Your task to perform on an android device: Search for "razer thresher" on bestbuy, select the first entry, and add it to the cart. Image 0: 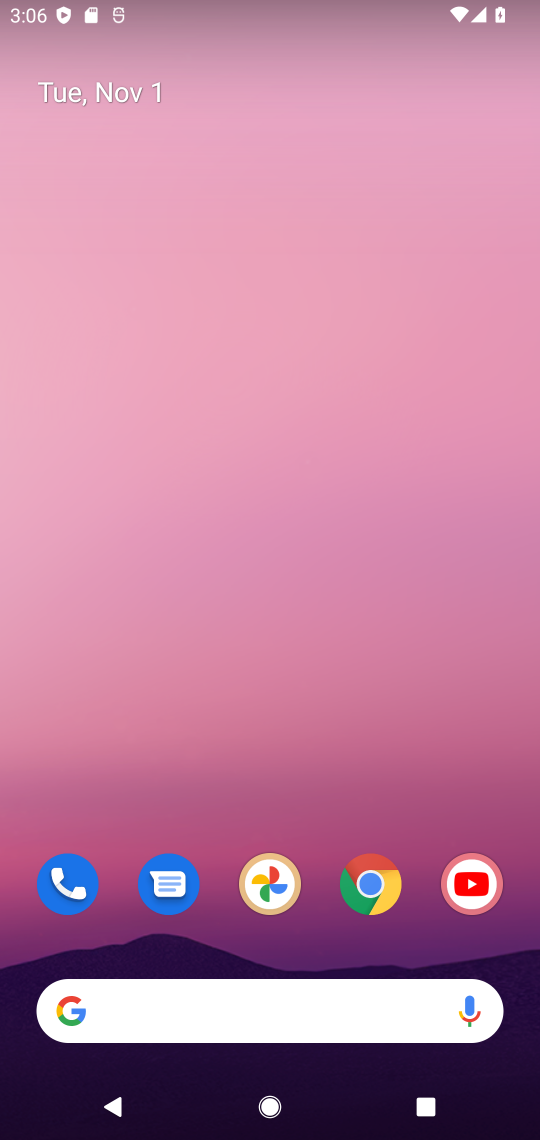
Step 0: click (525, 761)
Your task to perform on an android device: Search for "razer thresher" on bestbuy, select the first entry, and add it to the cart. Image 1: 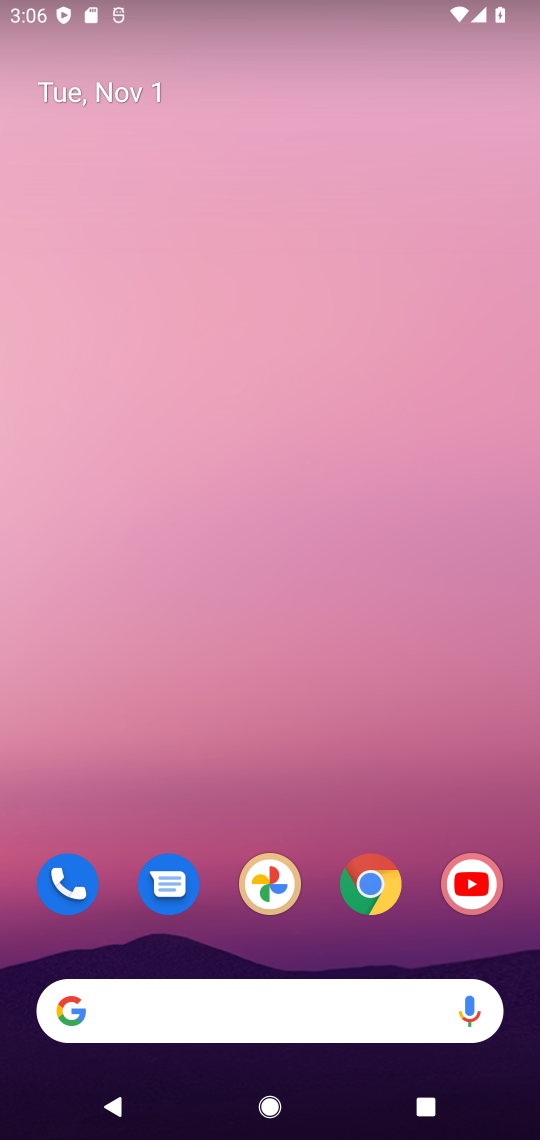
Step 1: click (382, 892)
Your task to perform on an android device: Search for "razer thresher" on bestbuy, select the first entry, and add it to the cart. Image 2: 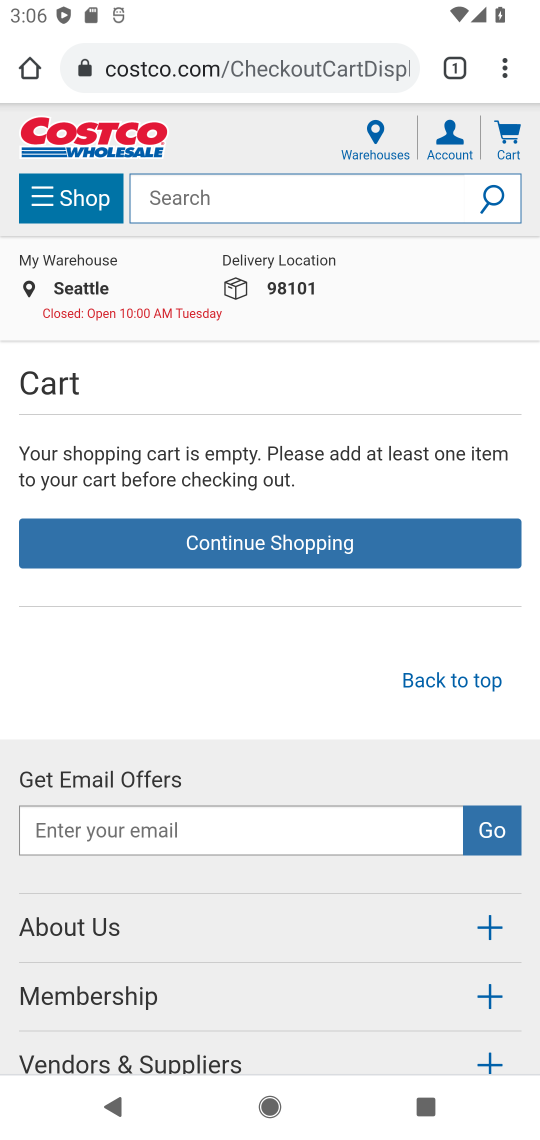
Step 2: click (233, 73)
Your task to perform on an android device: Search for "razer thresher" on bestbuy, select the first entry, and add it to the cart. Image 3: 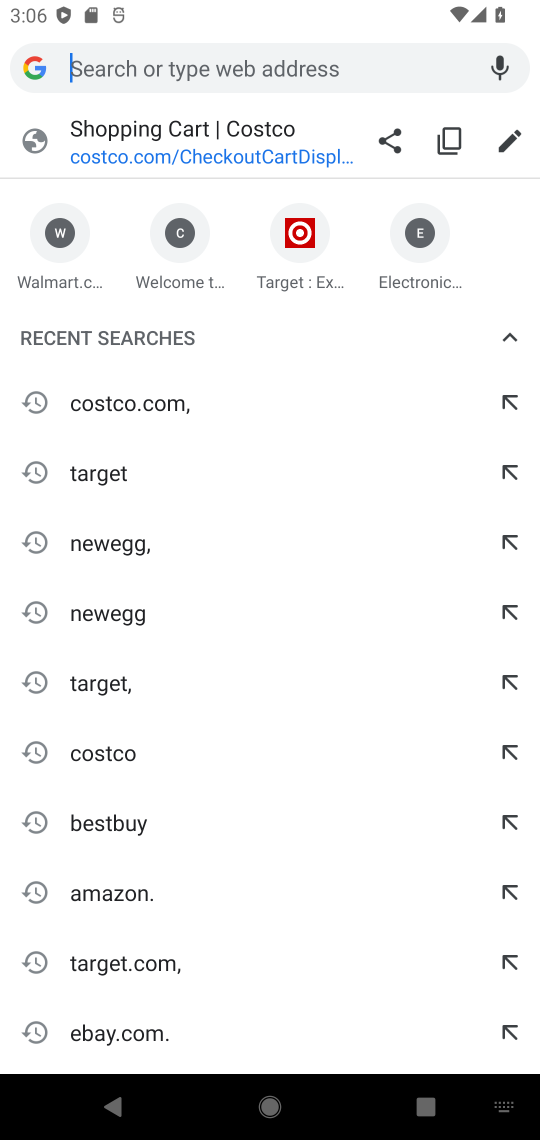
Step 3: type "costco.com"
Your task to perform on an android device: Search for "razer thresher" on bestbuy, select the first entry, and add it to the cart. Image 4: 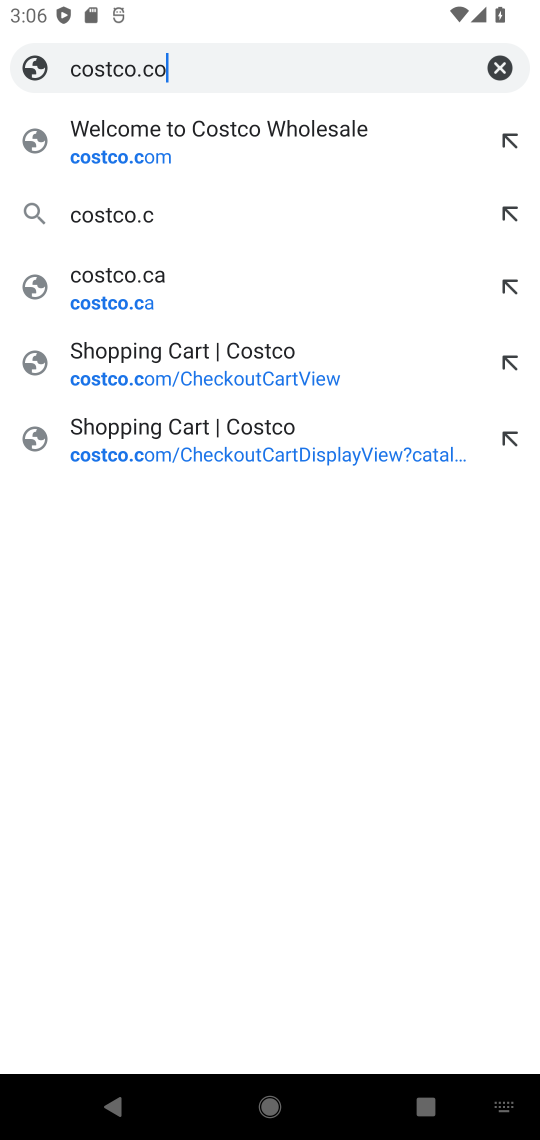
Step 4: press enter
Your task to perform on an android device: Search for "razer thresher" on bestbuy, select the first entry, and add it to the cart. Image 5: 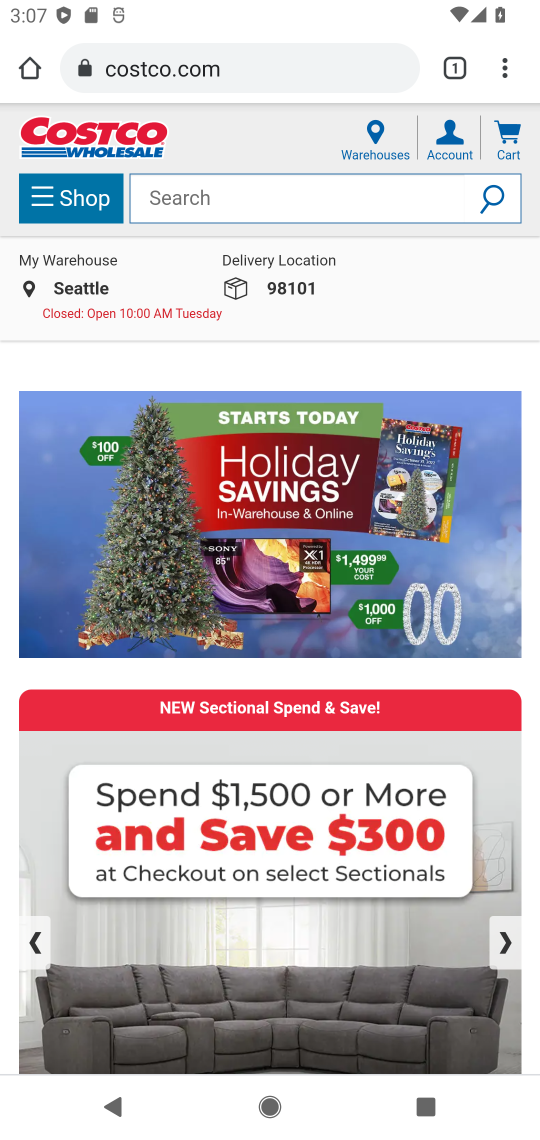
Step 5: click (287, 67)
Your task to perform on an android device: Search for "razer thresher" on bestbuy, select the first entry, and add it to the cart. Image 6: 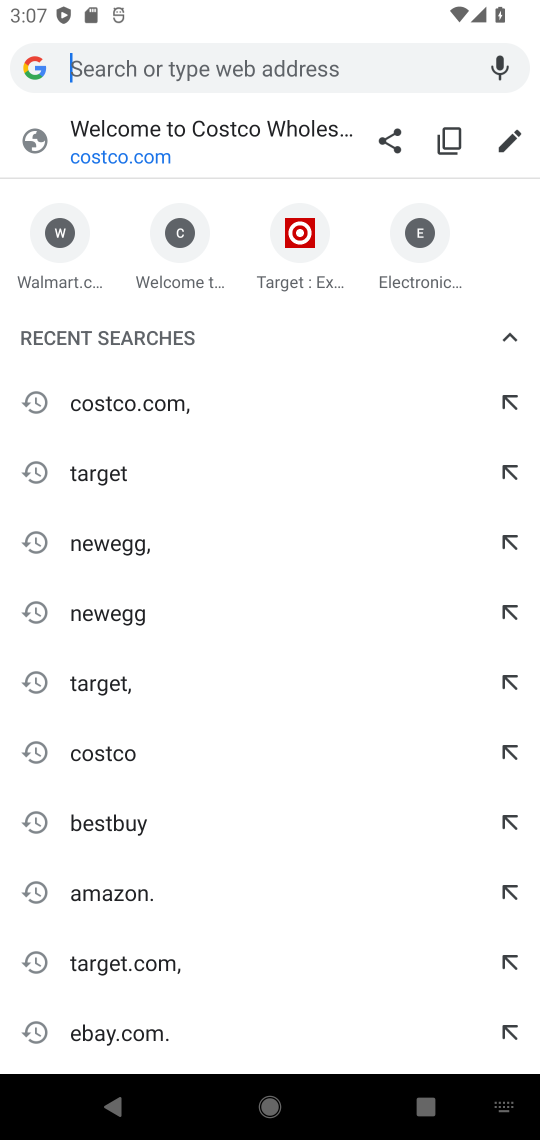
Step 6: type "bestbuy"
Your task to perform on an android device: Search for "razer thresher" on bestbuy, select the first entry, and add it to the cart. Image 7: 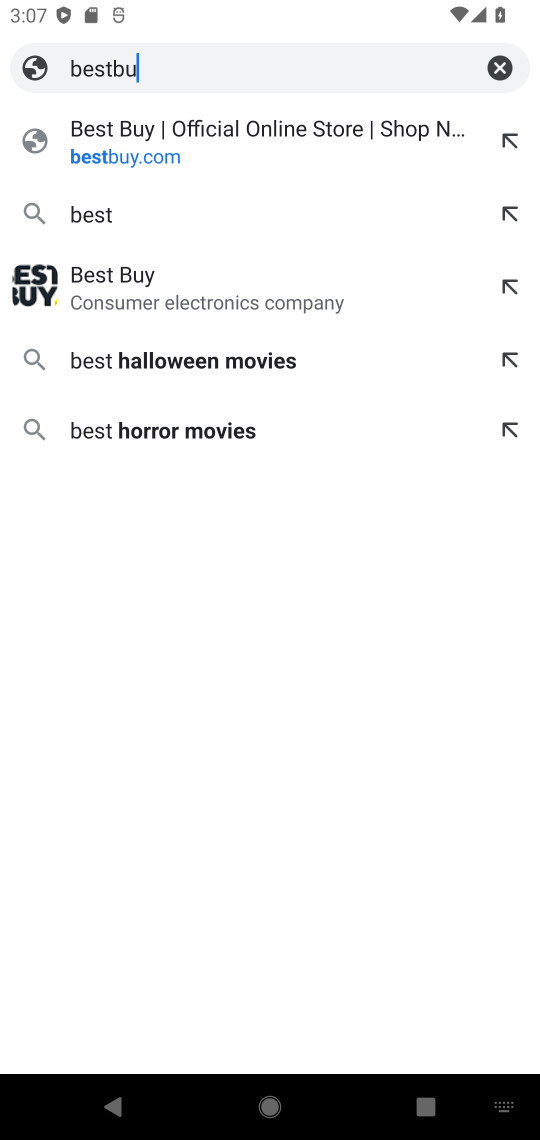
Step 7: press enter
Your task to perform on an android device: Search for "razer thresher" on bestbuy, select the first entry, and add it to the cart. Image 8: 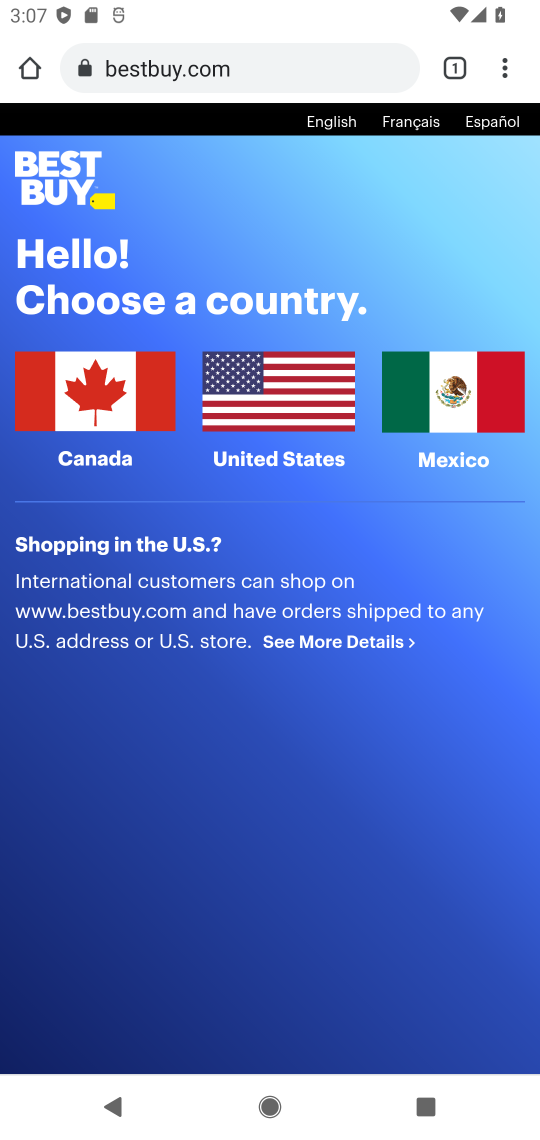
Step 8: click (303, 390)
Your task to perform on an android device: Search for "razer thresher" on bestbuy, select the first entry, and add it to the cart. Image 9: 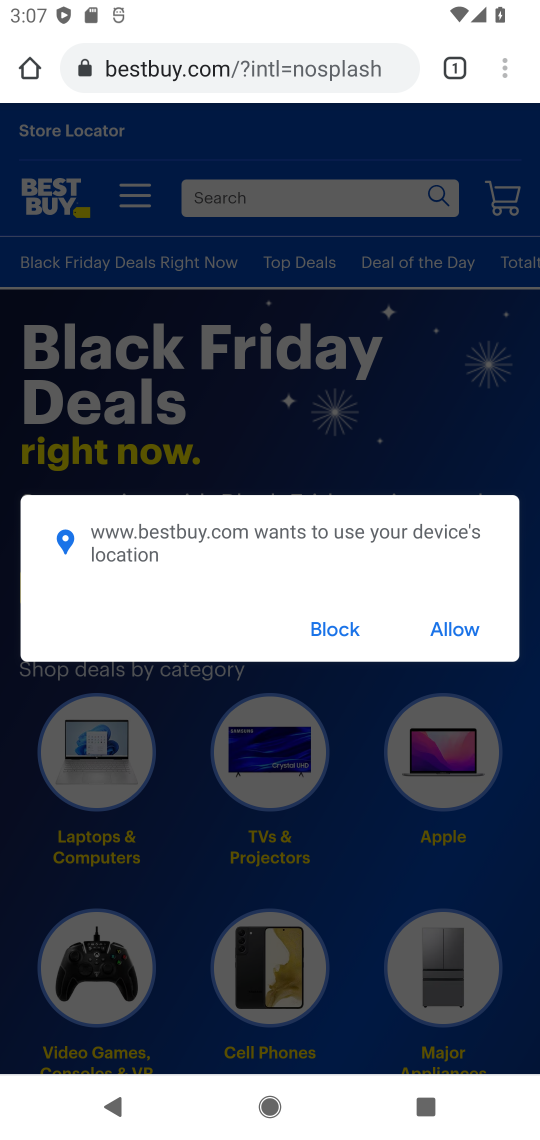
Step 9: click (346, 633)
Your task to perform on an android device: Search for "razer thresher" on bestbuy, select the first entry, and add it to the cart. Image 10: 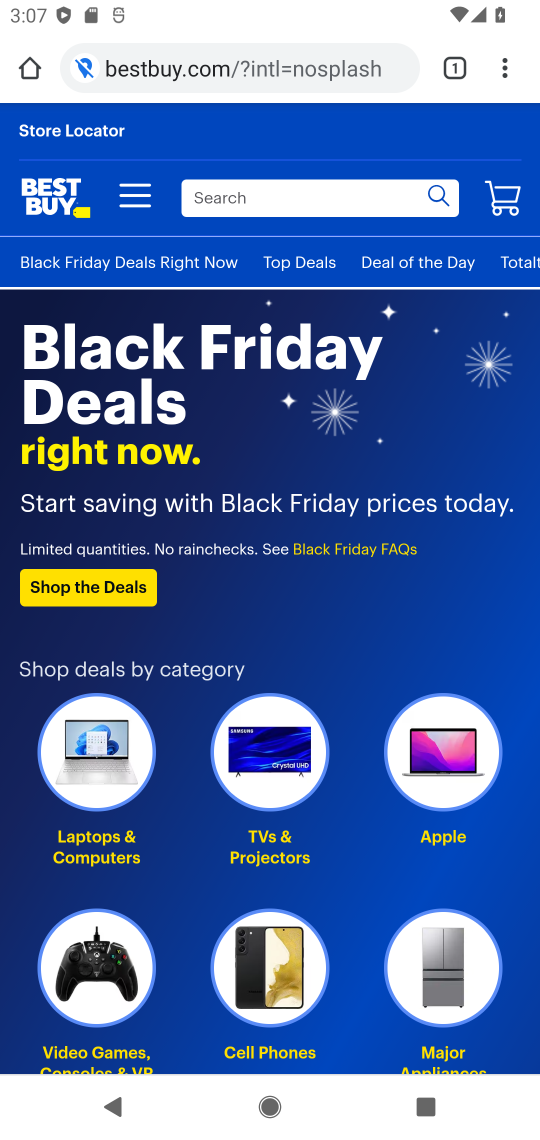
Step 10: click (317, 207)
Your task to perform on an android device: Search for "razer thresher" on bestbuy, select the first entry, and add it to the cart. Image 11: 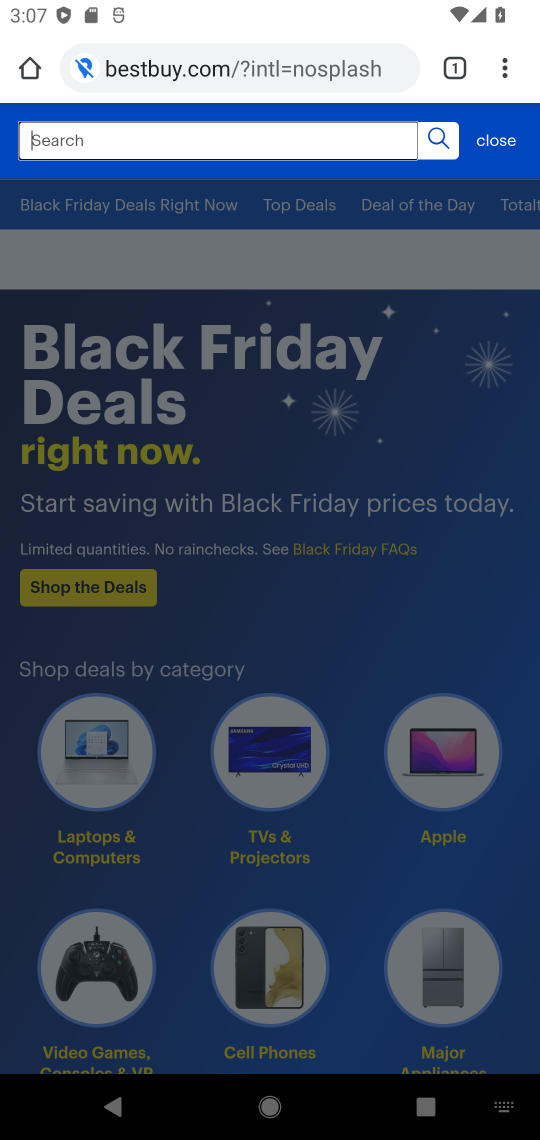
Step 11: type "razer thresher"
Your task to perform on an android device: Search for "razer thresher" on bestbuy, select the first entry, and add it to the cart. Image 12: 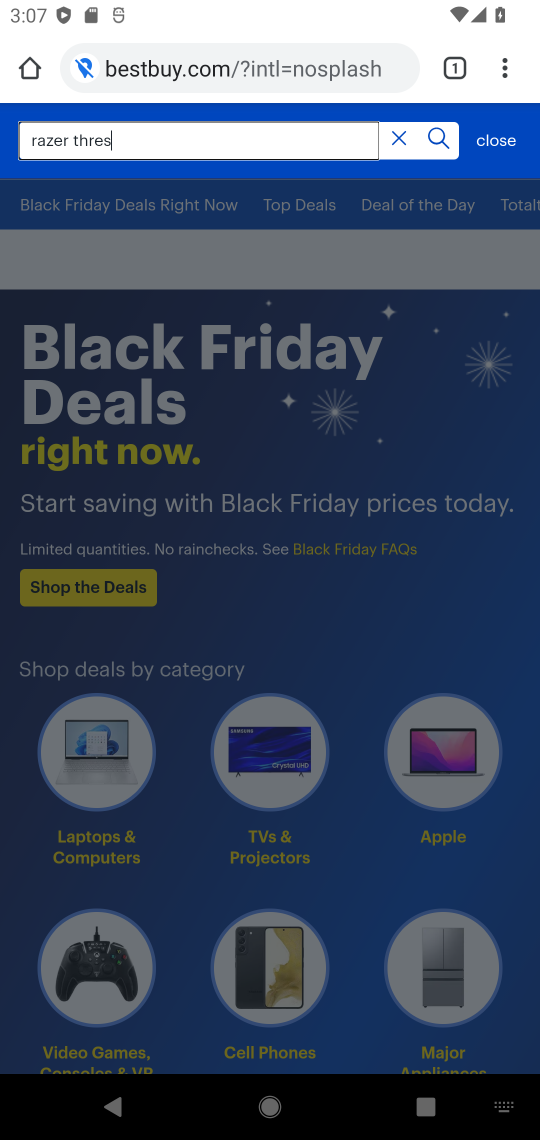
Step 12: press enter
Your task to perform on an android device: Search for "razer thresher" on bestbuy, select the first entry, and add it to the cart. Image 13: 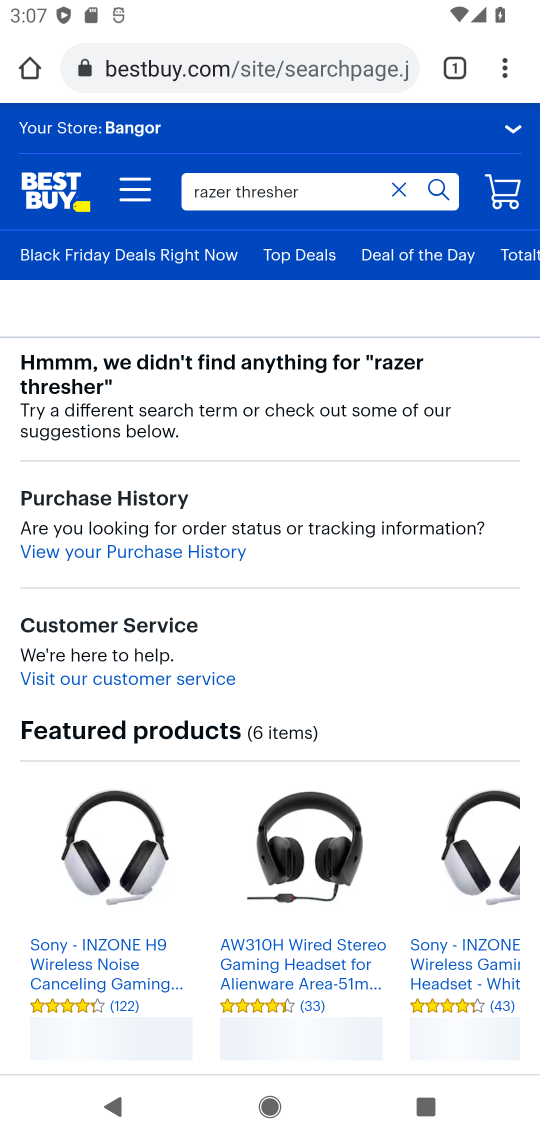
Step 13: task complete